Your task to perform on an android device: change notifications settings Image 0: 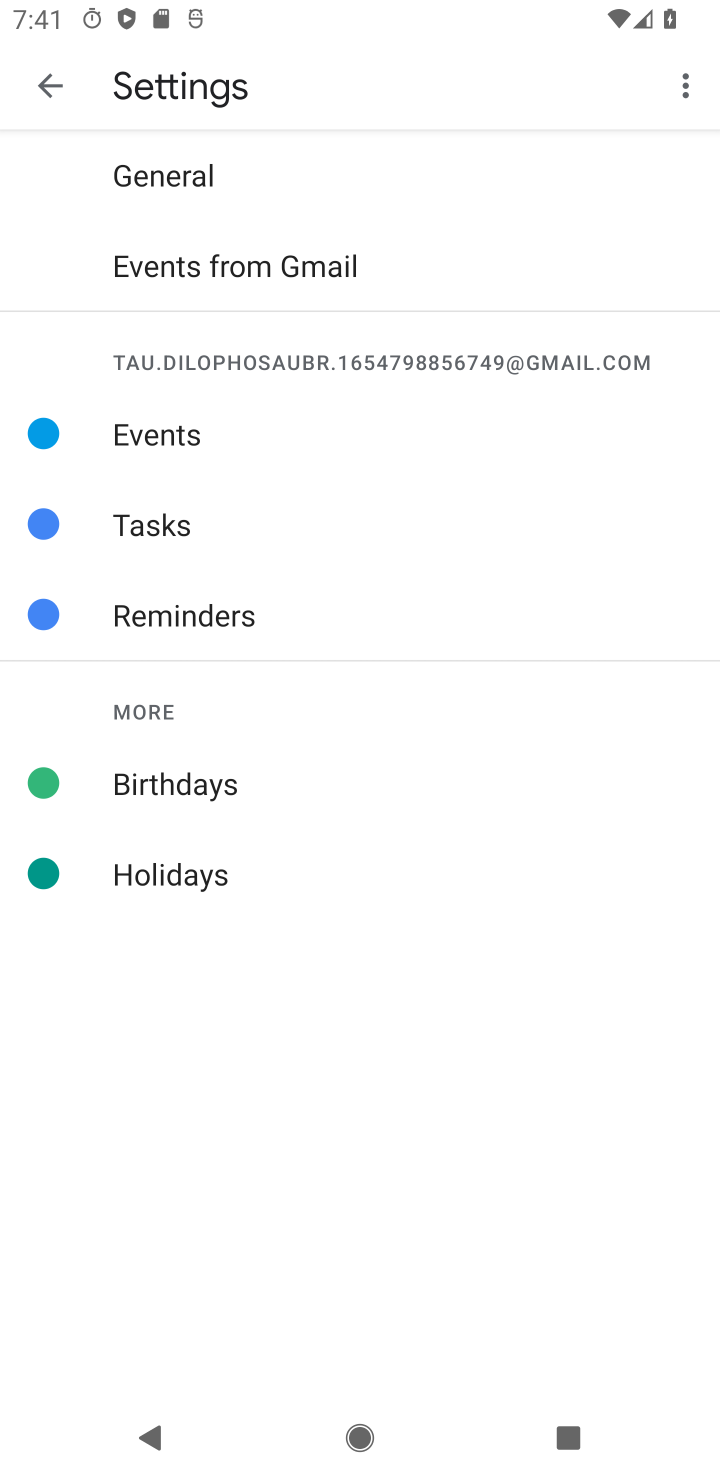
Step 0: press home button
Your task to perform on an android device: change notifications settings Image 1: 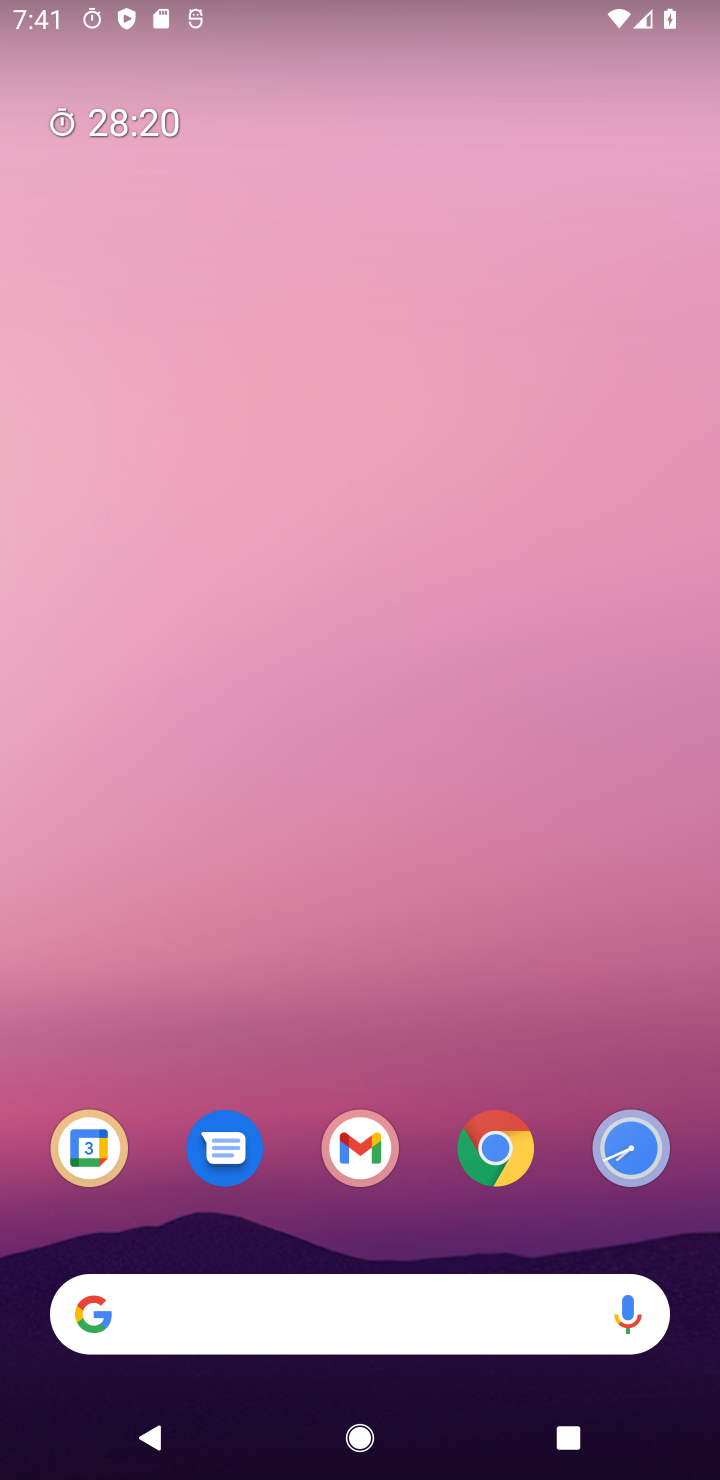
Step 1: drag from (410, 1220) to (455, 233)
Your task to perform on an android device: change notifications settings Image 2: 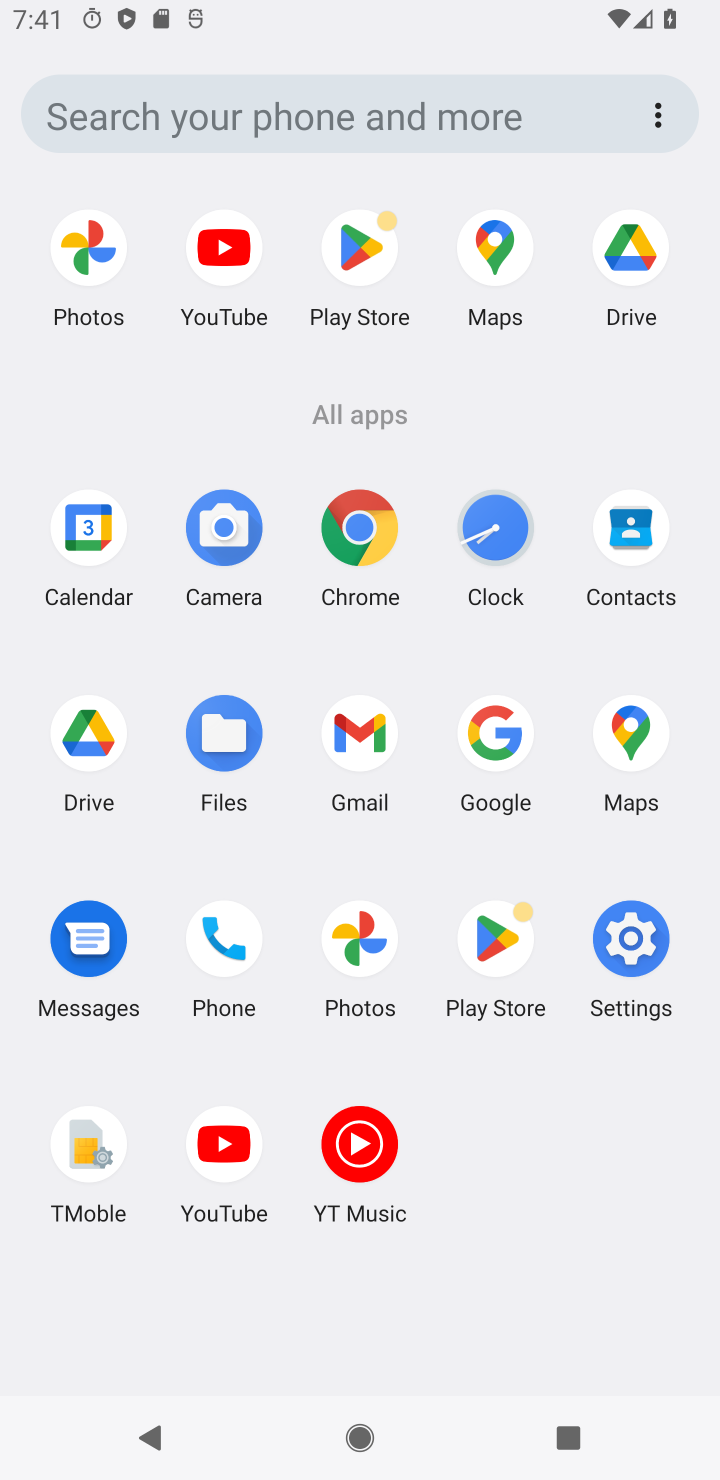
Step 2: click (615, 976)
Your task to perform on an android device: change notifications settings Image 3: 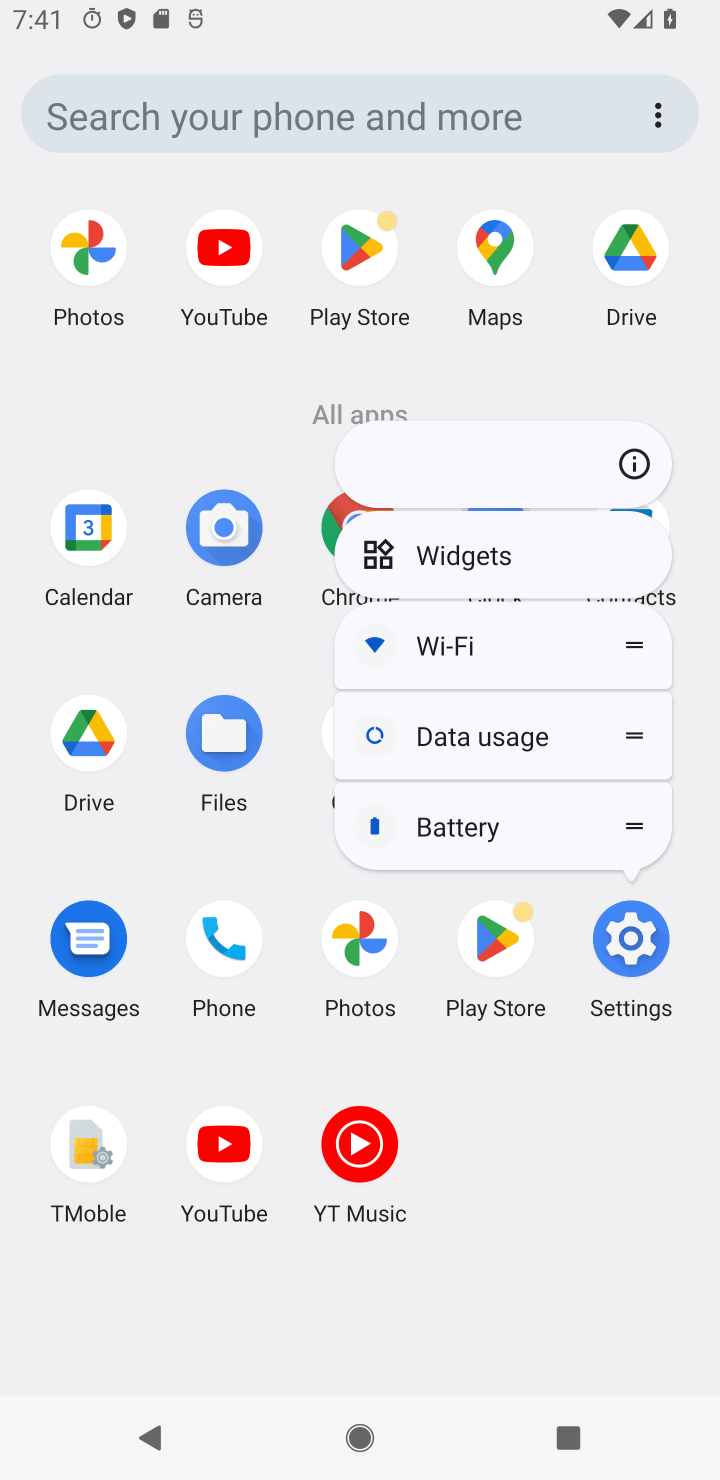
Step 3: click (615, 976)
Your task to perform on an android device: change notifications settings Image 4: 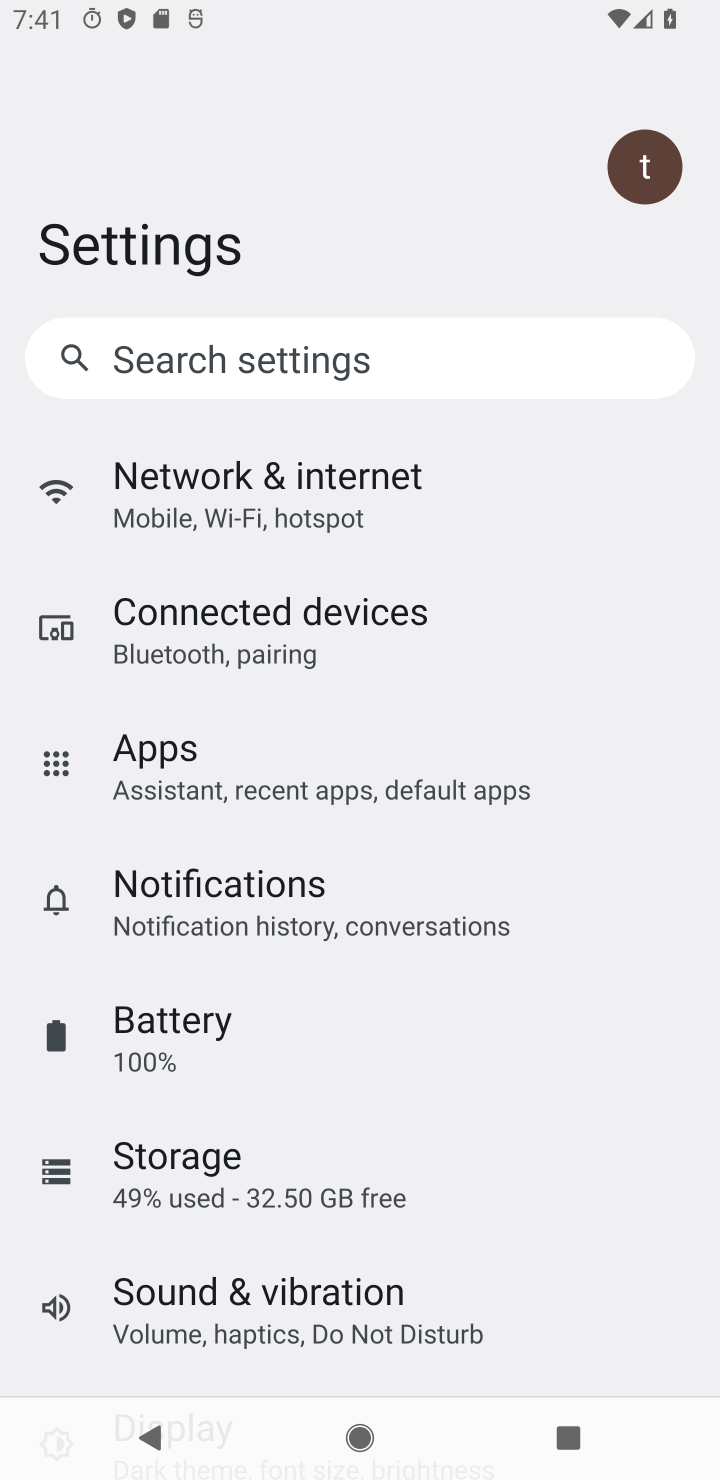
Step 4: click (232, 925)
Your task to perform on an android device: change notifications settings Image 5: 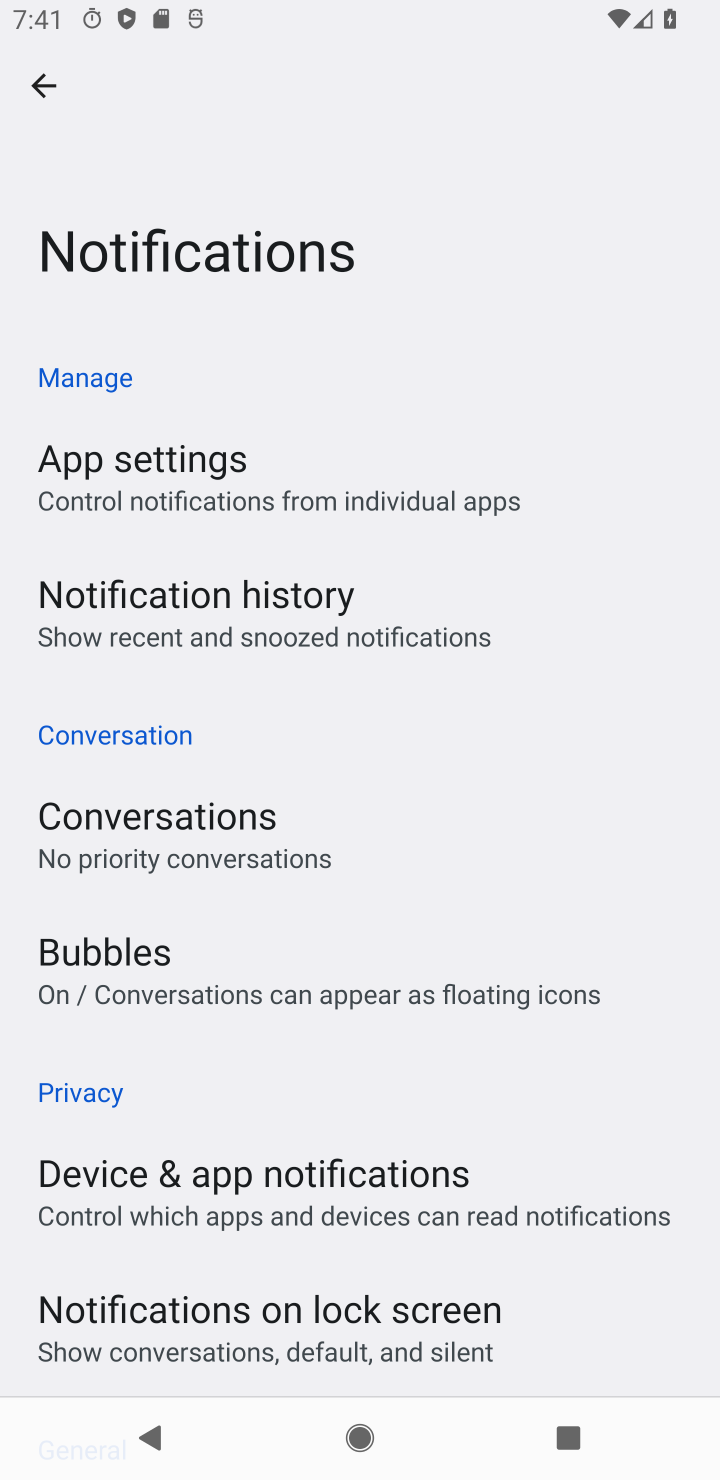
Step 5: task complete